Your task to perform on an android device: Open settings Image 0: 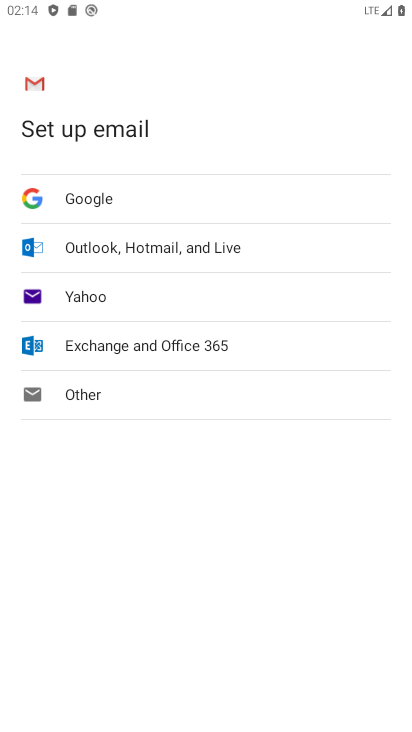
Step 0: press home button
Your task to perform on an android device: Open settings Image 1: 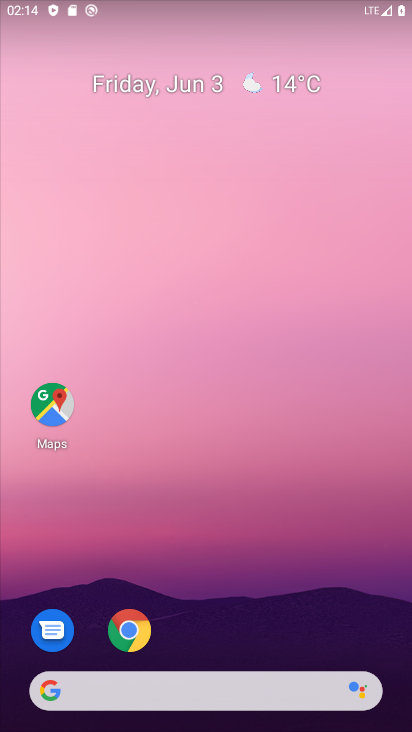
Step 1: drag from (399, 640) to (327, 117)
Your task to perform on an android device: Open settings Image 2: 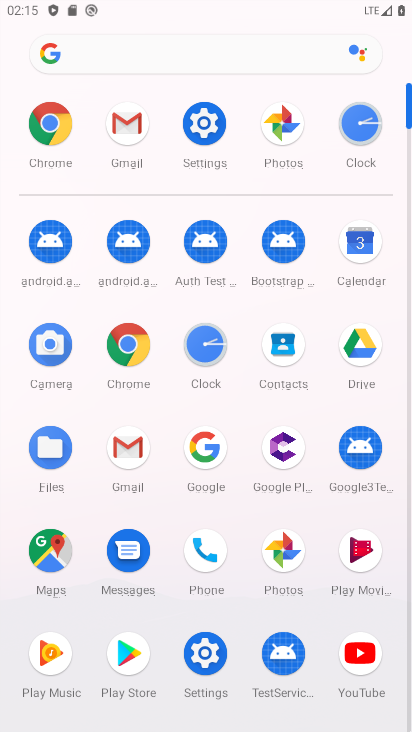
Step 2: click (203, 123)
Your task to perform on an android device: Open settings Image 3: 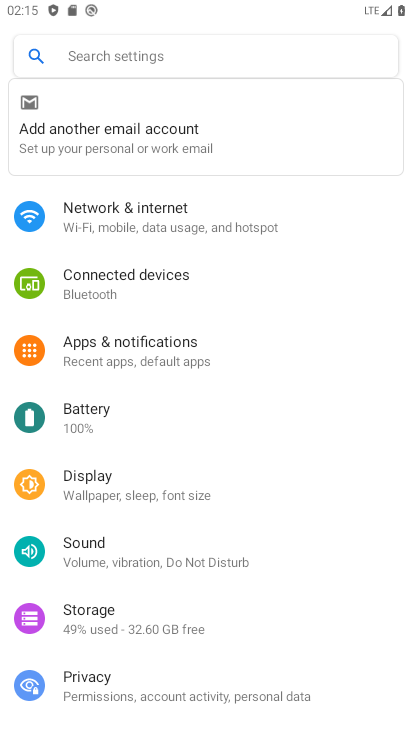
Step 3: task complete